Your task to perform on an android device: Open Google Chrome and open the bookmarks view Image 0: 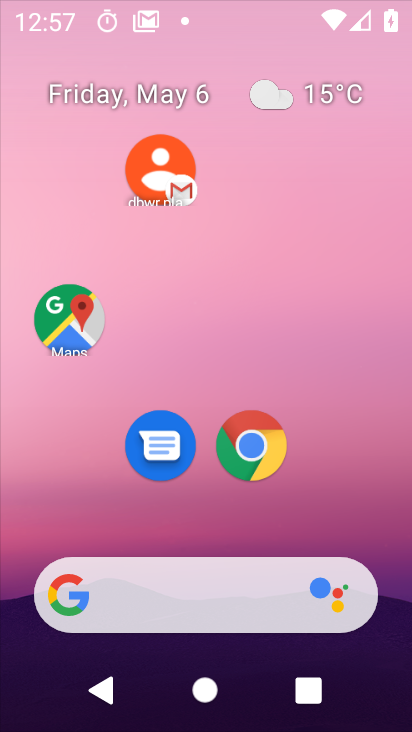
Step 0: drag from (390, 581) to (265, 201)
Your task to perform on an android device: Open Google Chrome and open the bookmarks view Image 1: 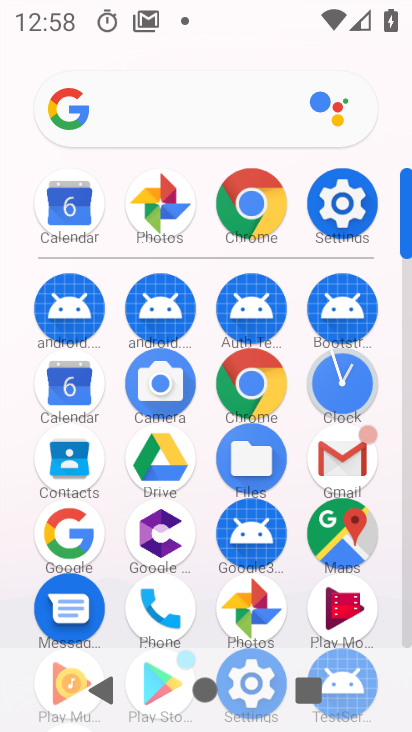
Step 1: click (245, 205)
Your task to perform on an android device: Open Google Chrome and open the bookmarks view Image 2: 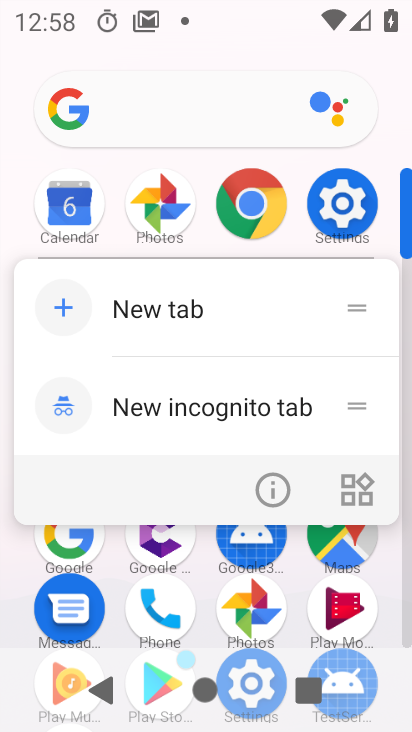
Step 2: click (177, 309)
Your task to perform on an android device: Open Google Chrome and open the bookmarks view Image 3: 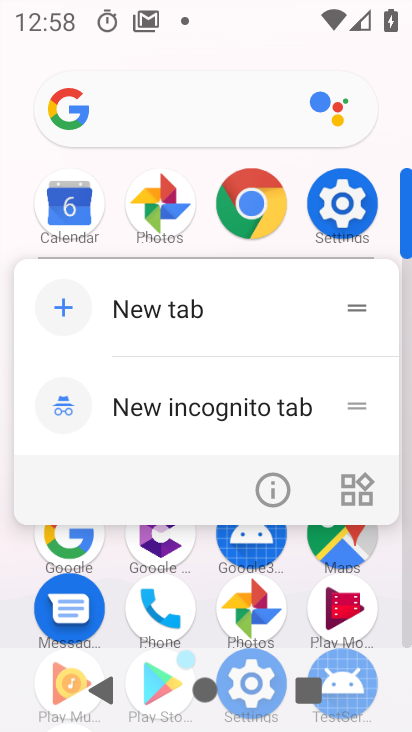
Step 3: click (177, 309)
Your task to perform on an android device: Open Google Chrome and open the bookmarks view Image 4: 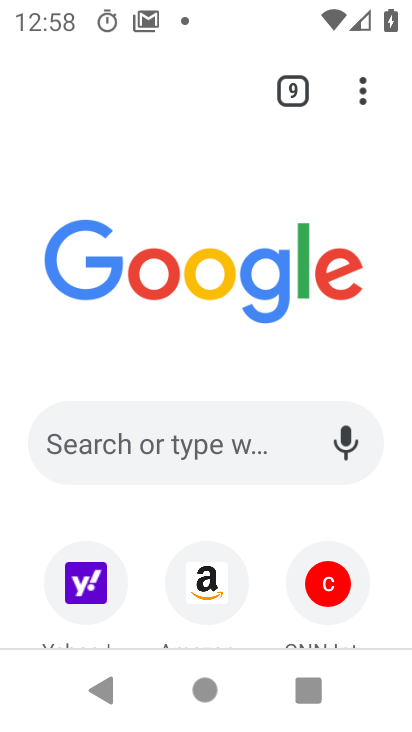
Step 4: drag from (363, 86) to (131, 352)
Your task to perform on an android device: Open Google Chrome and open the bookmarks view Image 5: 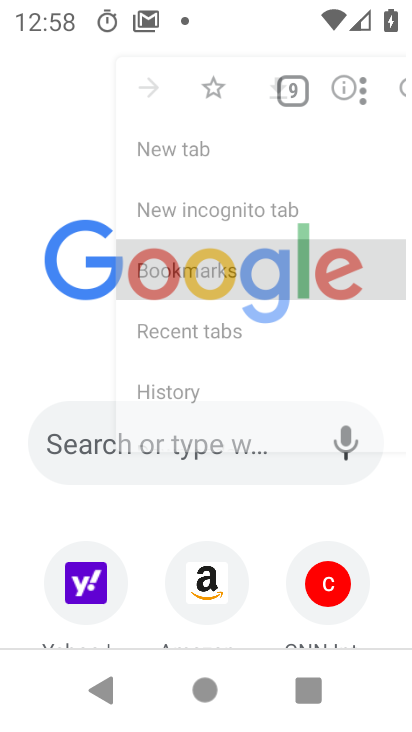
Step 5: click (131, 352)
Your task to perform on an android device: Open Google Chrome and open the bookmarks view Image 6: 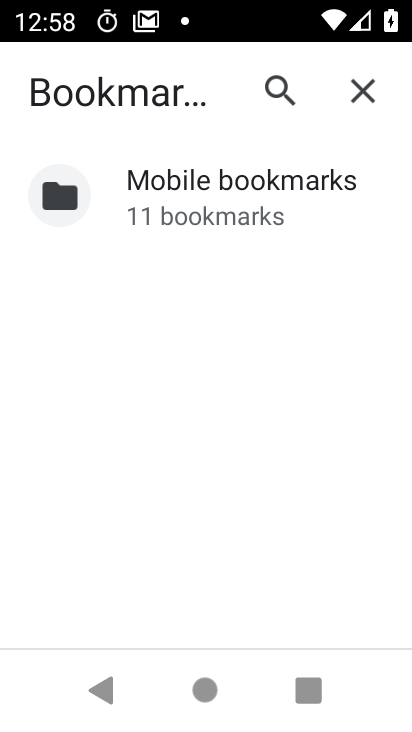
Step 6: click (230, 191)
Your task to perform on an android device: Open Google Chrome and open the bookmarks view Image 7: 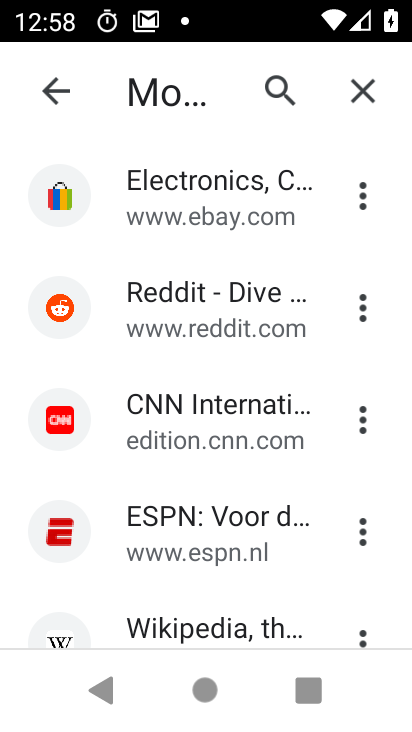
Step 7: task complete